Your task to perform on an android device: Go to battery settings Image 0: 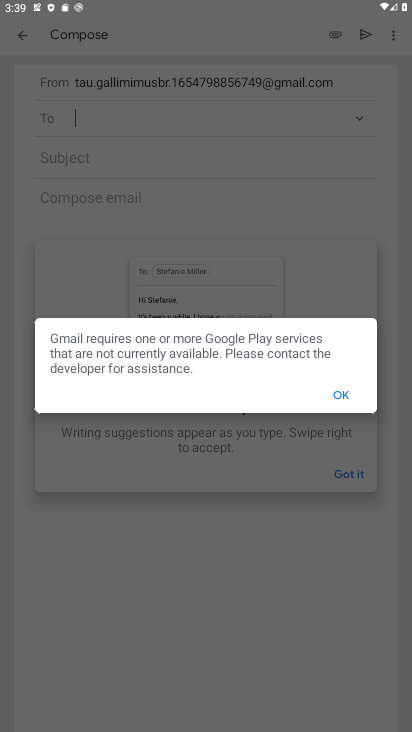
Step 0: press home button
Your task to perform on an android device: Go to battery settings Image 1: 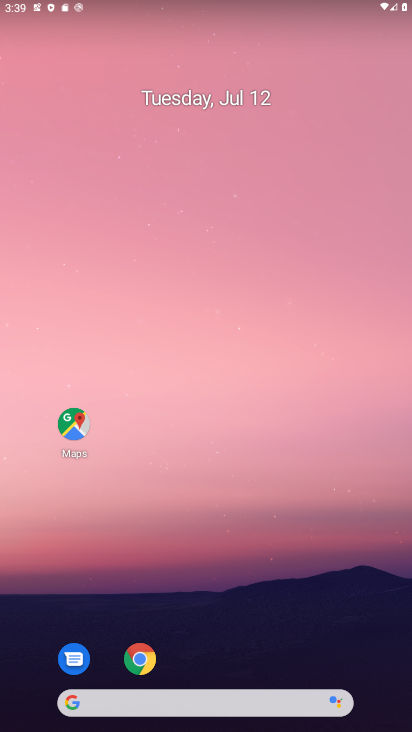
Step 1: drag from (211, 718) to (214, 149)
Your task to perform on an android device: Go to battery settings Image 2: 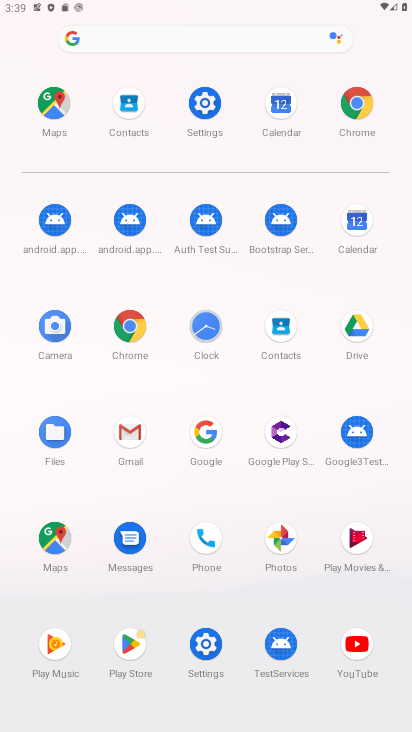
Step 2: click (206, 103)
Your task to perform on an android device: Go to battery settings Image 3: 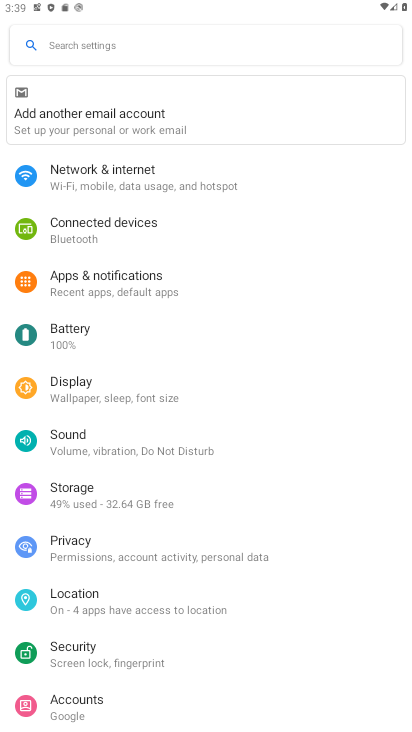
Step 3: click (64, 331)
Your task to perform on an android device: Go to battery settings Image 4: 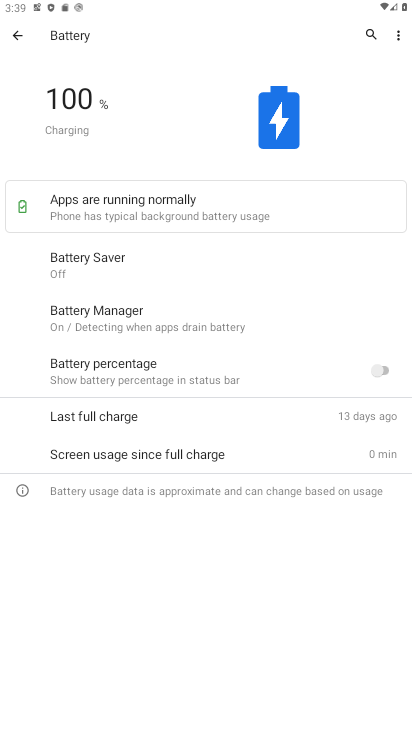
Step 4: task complete